Your task to perform on an android device: Go to eBay Image 0: 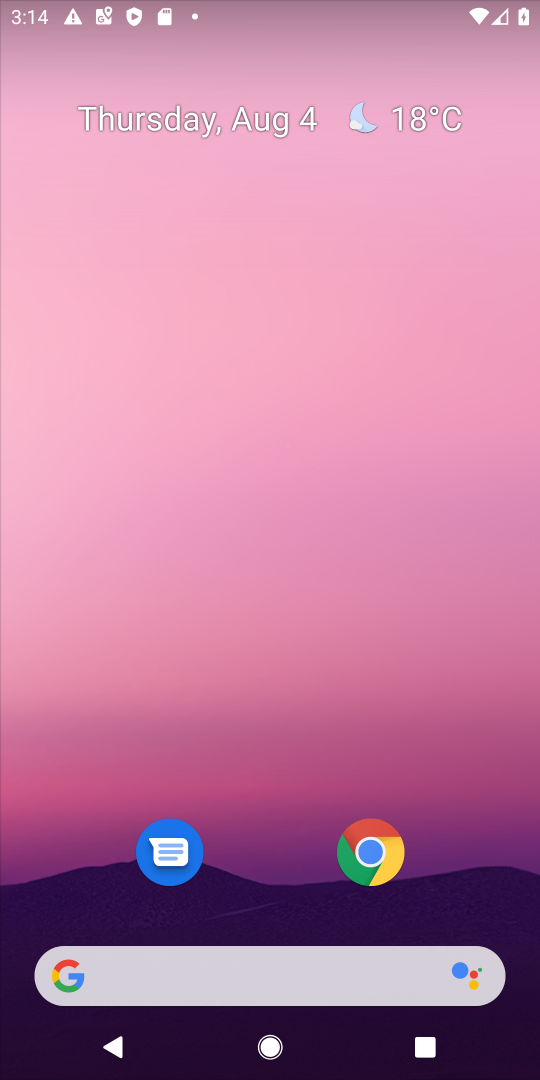
Step 0: click (360, 854)
Your task to perform on an android device: Go to eBay Image 1: 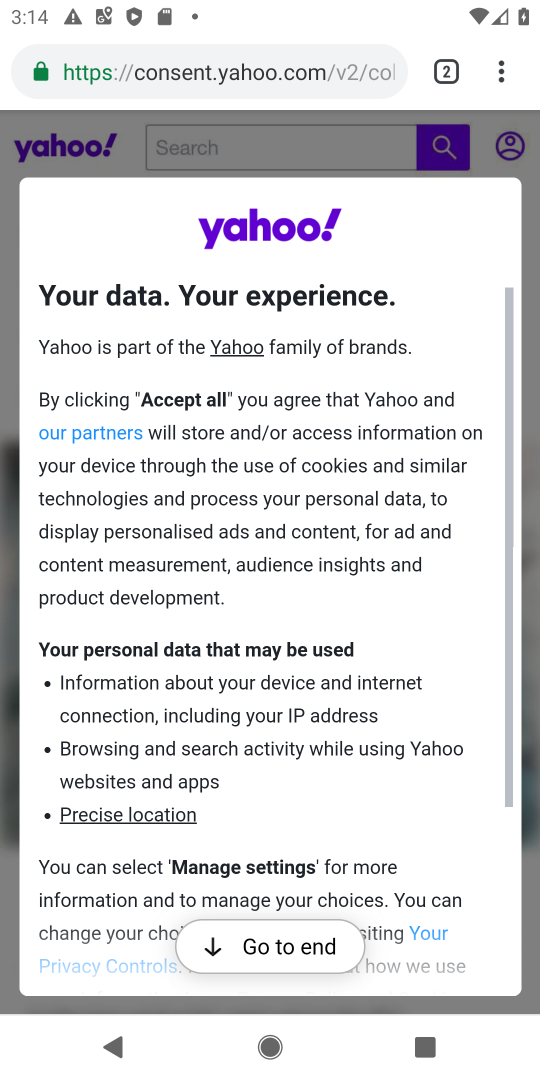
Step 1: click (446, 76)
Your task to perform on an android device: Go to eBay Image 2: 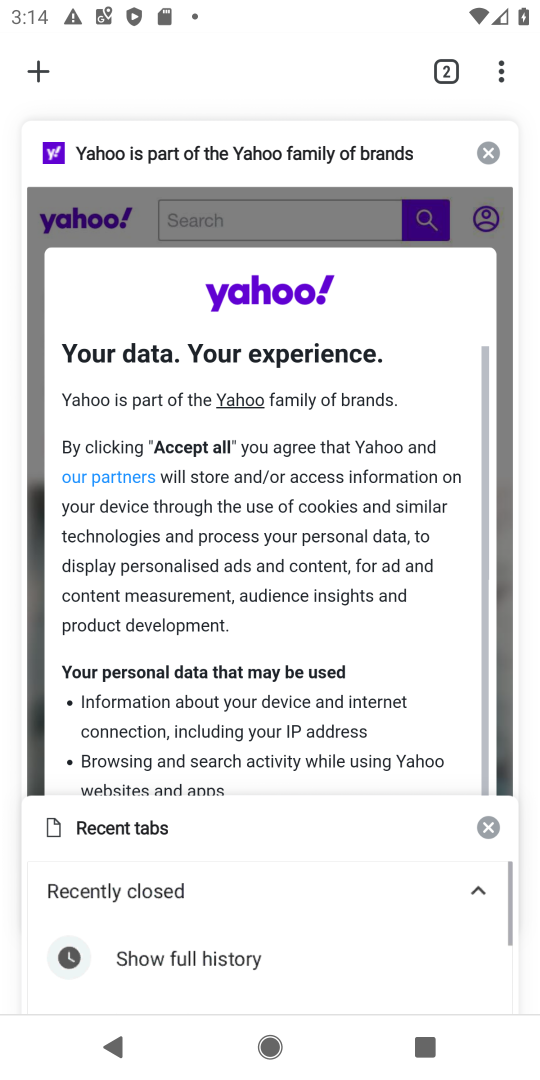
Step 2: click (39, 69)
Your task to perform on an android device: Go to eBay Image 3: 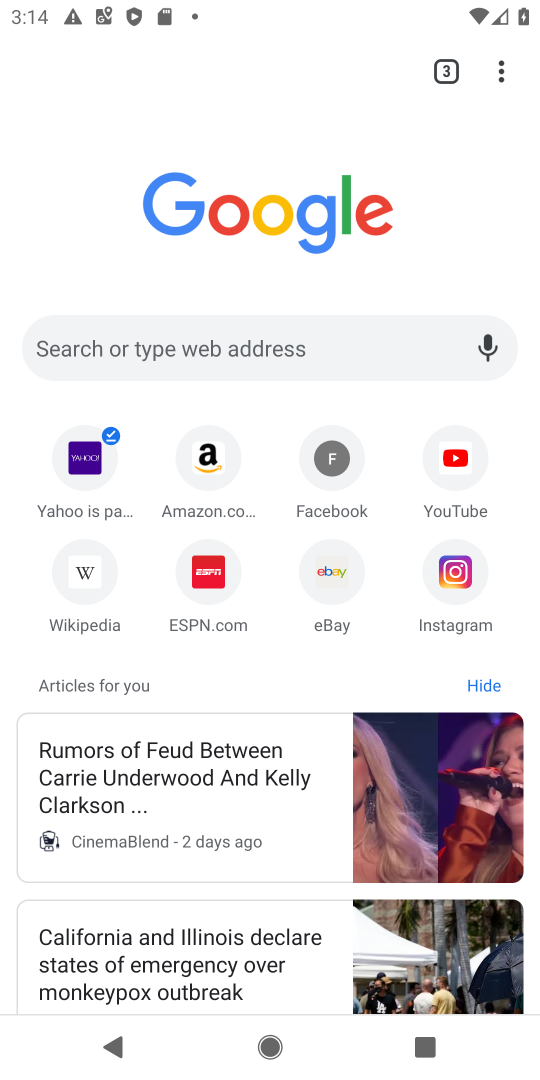
Step 3: click (323, 583)
Your task to perform on an android device: Go to eBay Image 4: 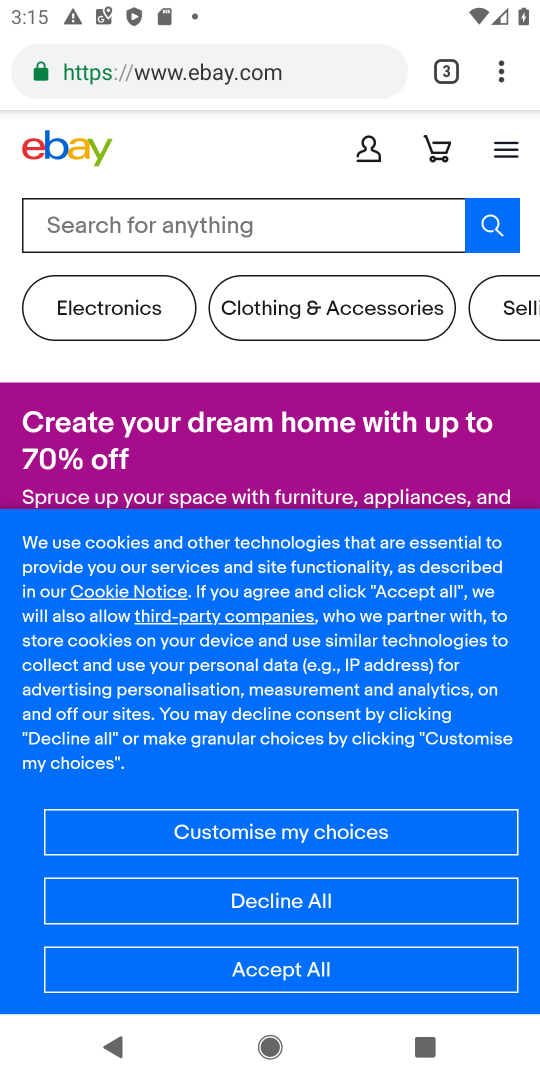
Step 4: task complete